Your task to perform on an android device: change notification settings in the gmail app Image 0: 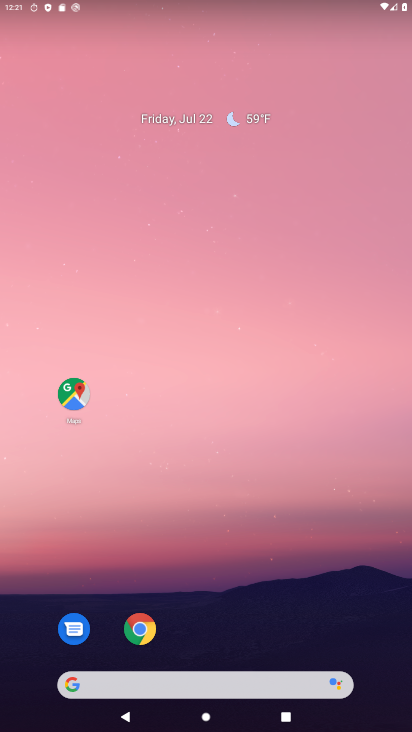
Step 0: drag from (256, 662) to (235, 24)
Your task to perform on an android device: change notification settings in the gmail app Image 1: 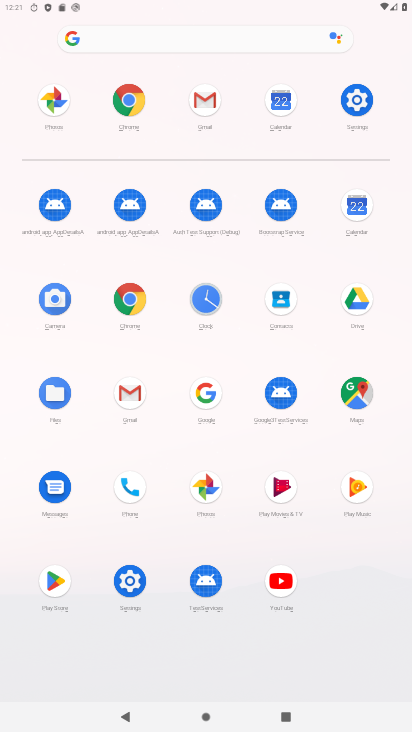
Step 1: click (130, 393)
Your task to perform on an android device: change notification settings in the gmail app Image 2: 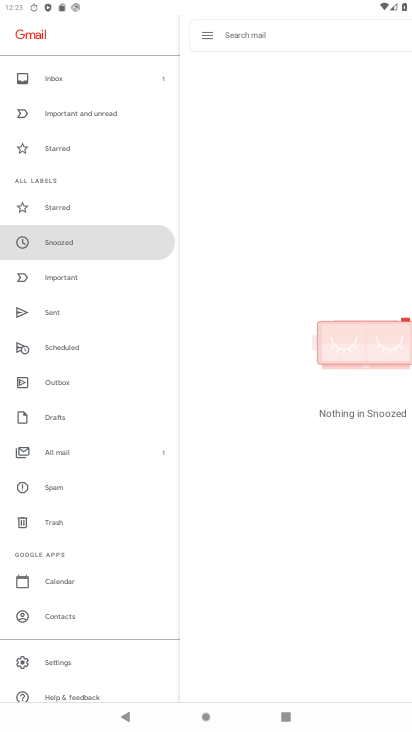
Step 2: click (58, 658)
Your task to perform on an android device: change notification settings in the gmail app Image 3: 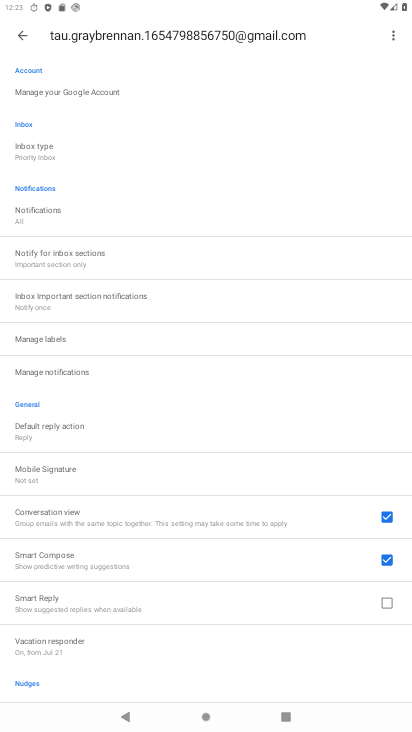
Step 3: click (72, 376)
Your task to perform on an android device: change notification settings in the gmail app Image 4: 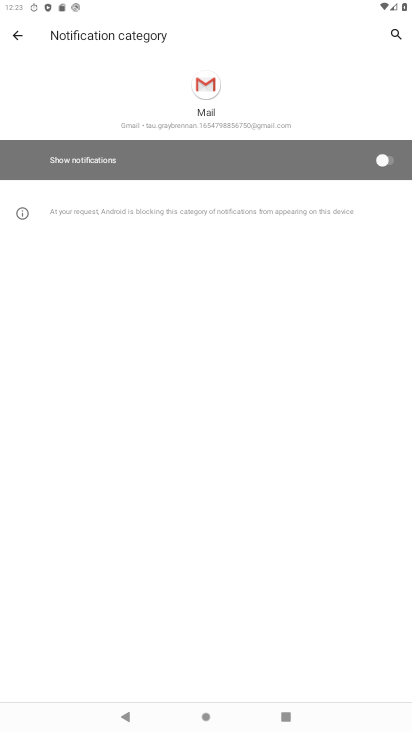
Step 4: click (394, 162)
Your task to perform on an android device: change notification settings in the gmail app Image 5: 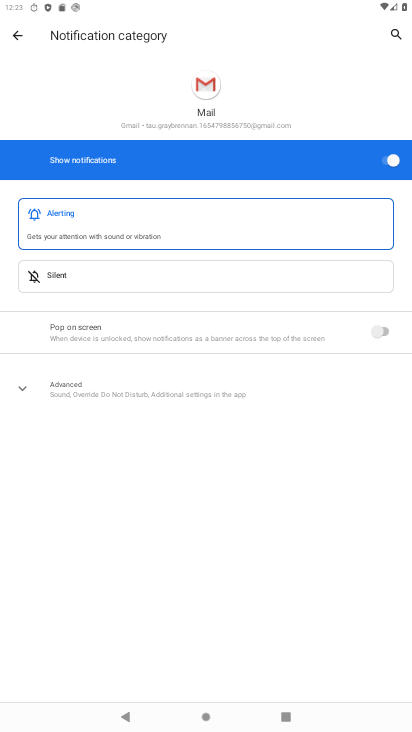
Step 5: click (391, 160)
Your task to perform on an android device: change notification settings in the gmail app Image 6: 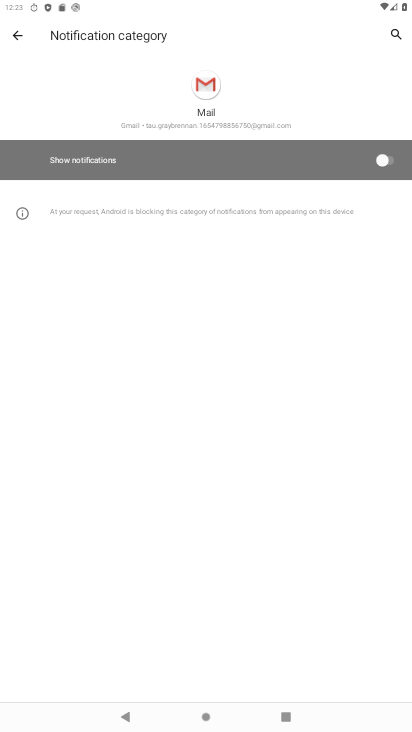
Step 6: task complete